Your task to perform on an android device: Open the calendar app, open the side menu, and click the "Day" option Image 0: 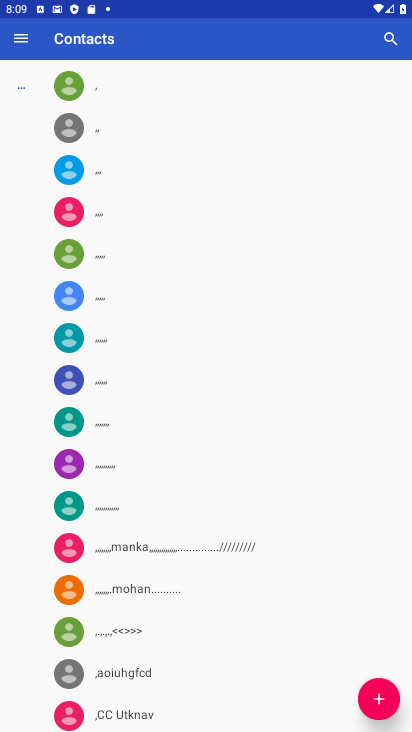
Step 0: press home button
Your task to perform on an android device: Open the calendar app, open the side menu, and click the "Day" option Image 1: 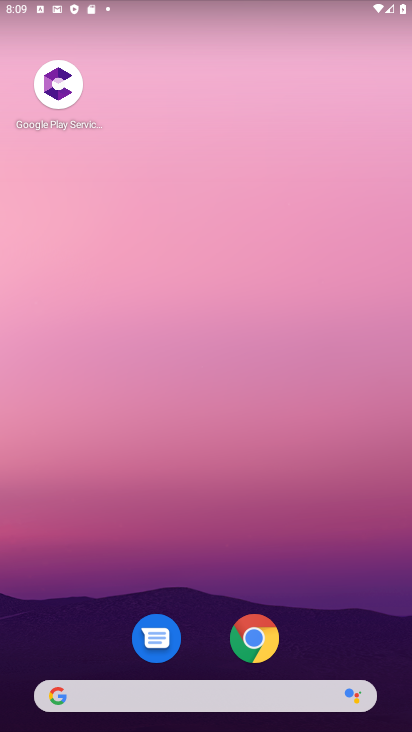
Step 1: drag from (152, 617) to (113, 22)
Your task to perform on an android device: Open the calendar app, open the side menu, and click the "Day" option Image 2: 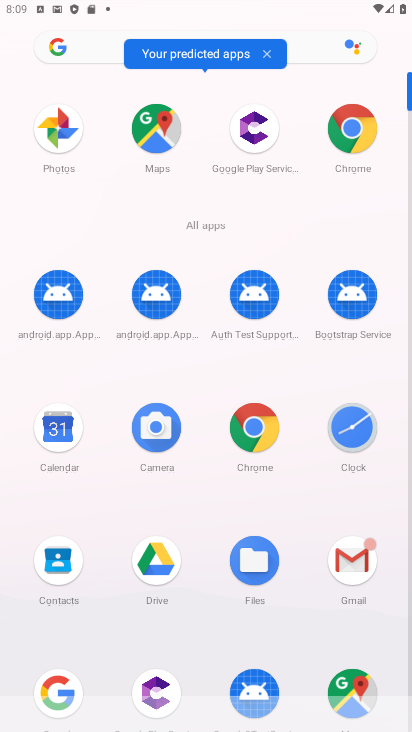
Step 2: click (47, 420)
Your task to perform on an android device: Open the calendar app, open the side menu, and click the "Day" option Image 3: 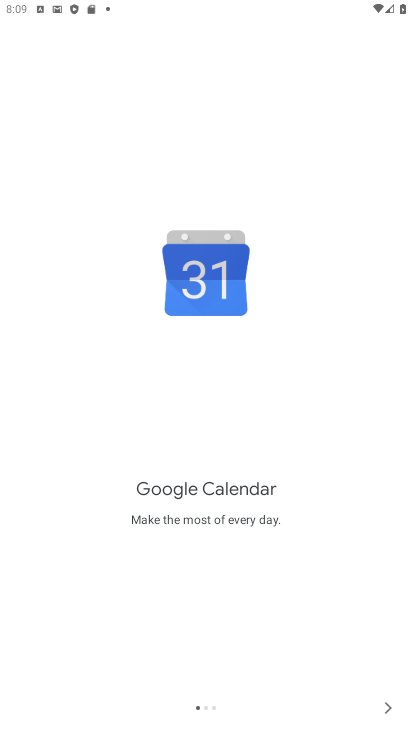
Step 3: click (386, 714)
Your task to perform on an android device: Open the calendar app, open the side menu, and click the "Day" option Image 4: 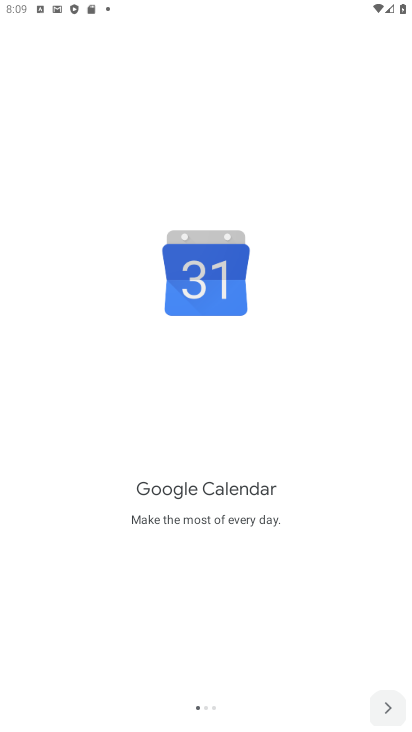
Step 4: click (386, 714)
Your task to perform on an android device: Open the calendar app, open the side menu, and click the "Day" option Image 5: 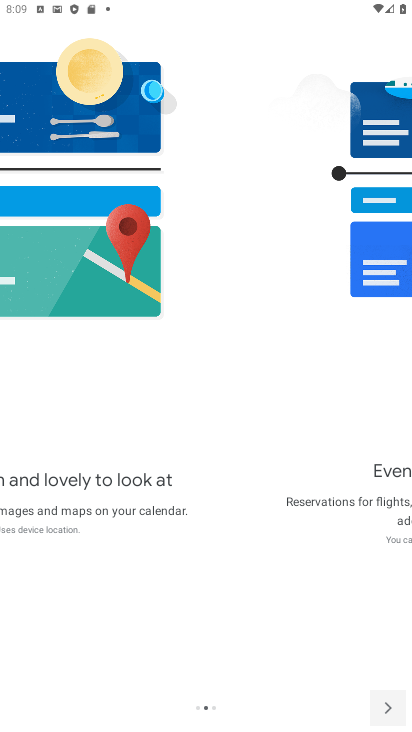
Step 5: click (386, 714)
Your task to perform on an android device: Open the calendar app, open the side menu, and click the "Day" option Image 6: 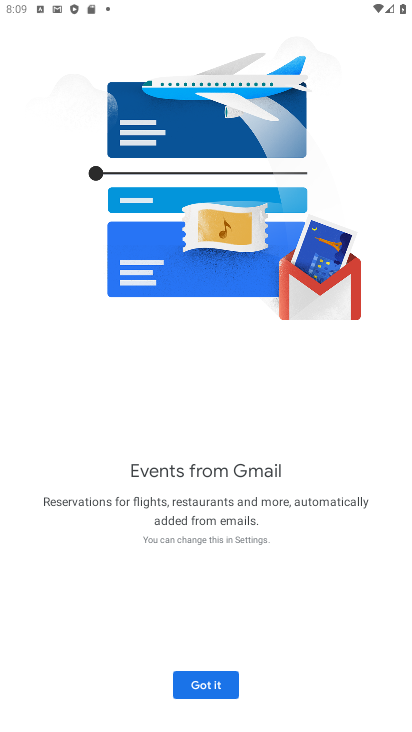
Step 6: click (386, 714)
Your task to perform on an android device: Open the calendar app, open the side menu, and click the "Day" option Image 7: 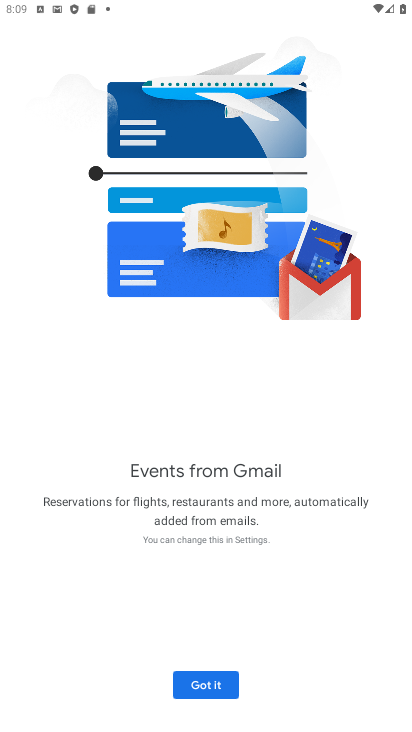
Step 7: click (224, 680)
Your task to perform on an android device: Open the calendar app, open the side menu, and click the "Day" option Image 8: 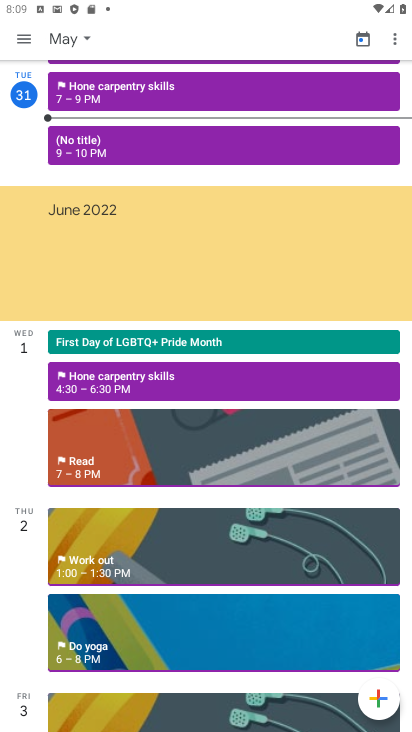
Step 8: click (19, 31)
Your task to perform on an android device: Open the calendar app, open the side menu, and click the "Day" option Image 9: 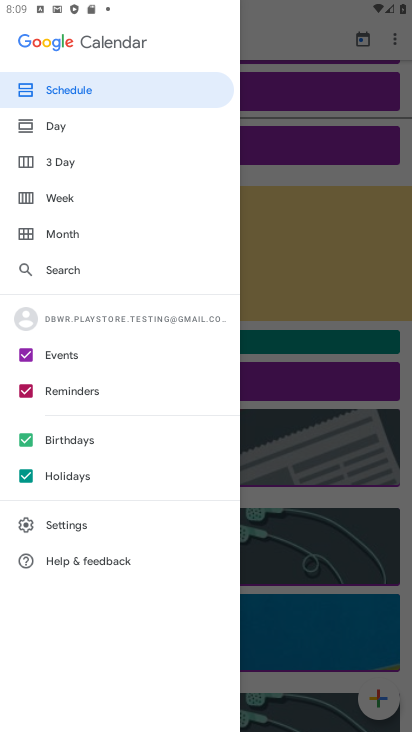
Step 9: click (101, 125)
Your task to perform on an android device: Open the calendar app, open the side menu, and click the "Day" option Image 10: 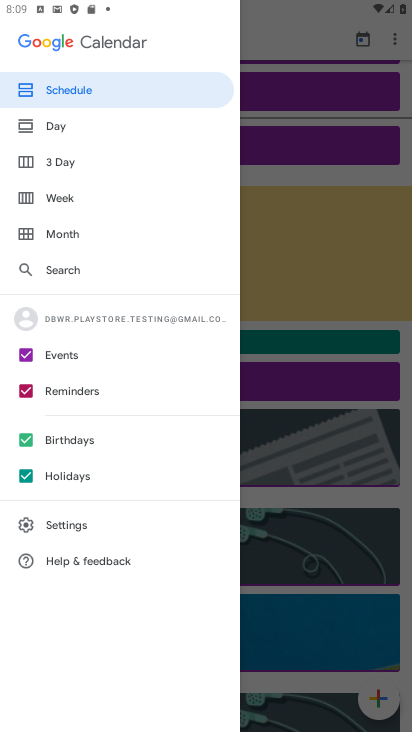
Step 10: click (65, 129)
Your task to perform on an android device: Open the calendar app, open the side menu, and click the "Day" option Image 11: 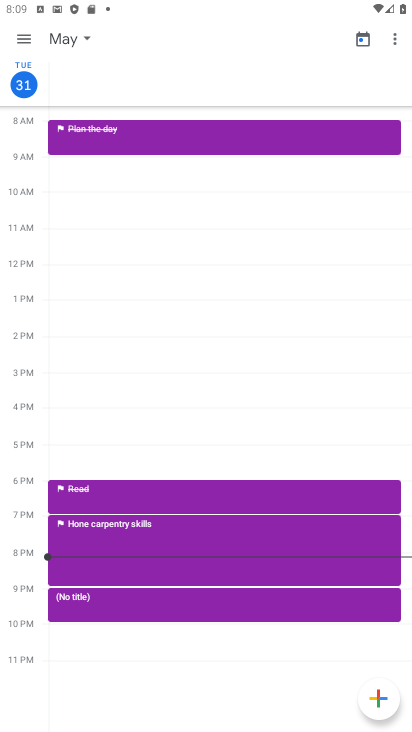
Step 11: task complete